Your task to perform on an android device: change keyboard looks Image 0: 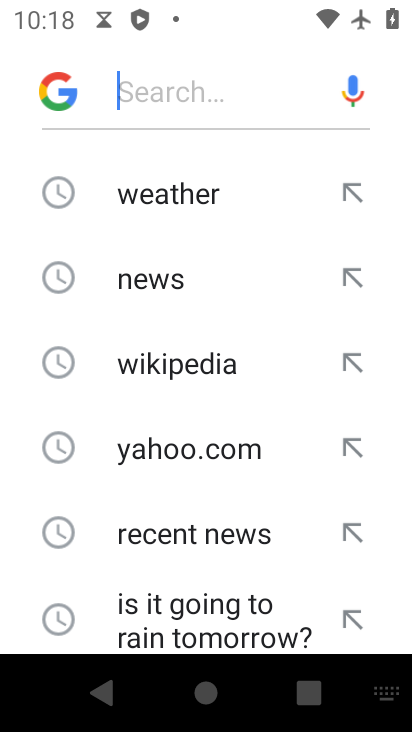
Step 0: press back button
Your task to perform on an android device: change keyboard looks Image 1: 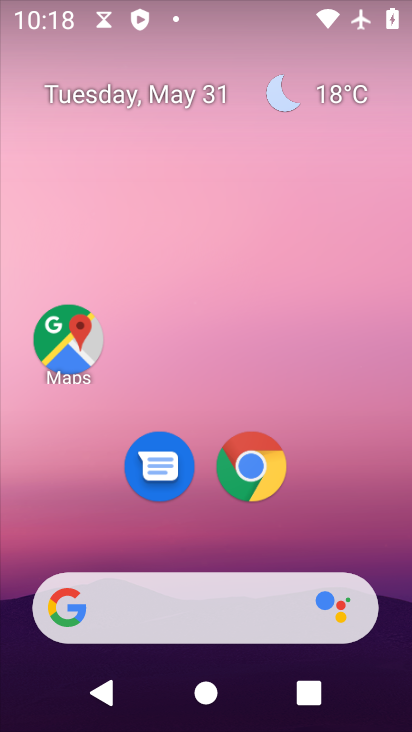
Step 1: drag from (351, 466) to (254, 0)
Your task to perform on an android device: change keyboard looks Image 2: 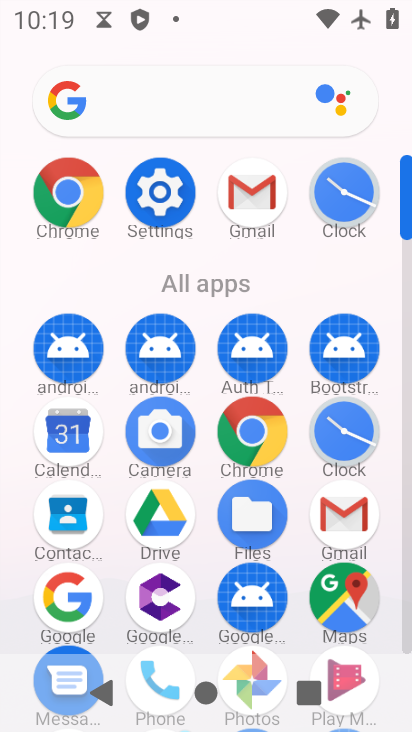
Step 2: click (345, 428)
Your task to perform on an android device: change keyboard looks Image 3: 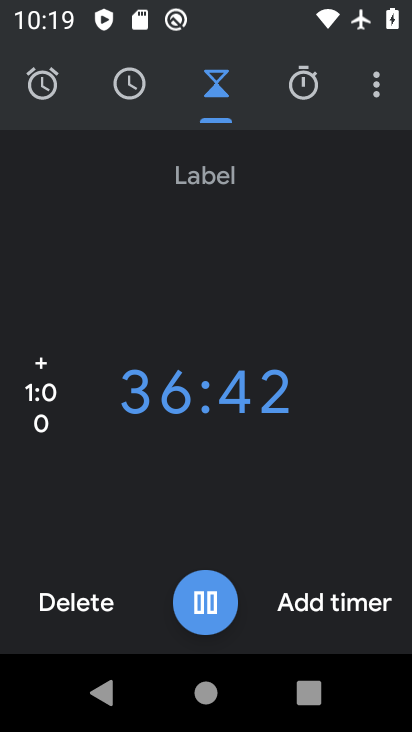
Step 3: press back button
Your task to perform on an android device: change keyboard looks Image 4: 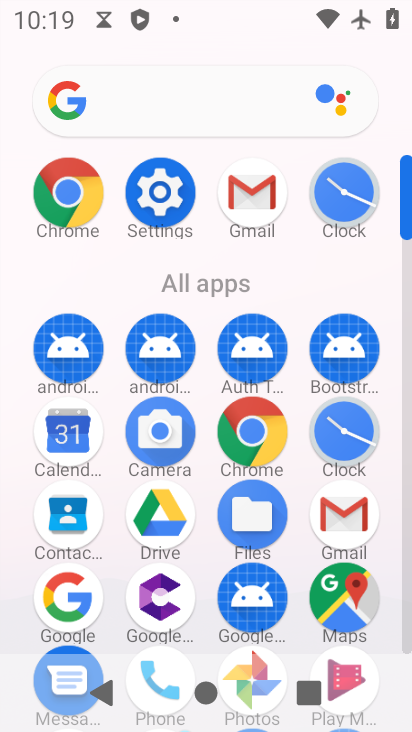
Step 4: click (156, 187)
Your task to perform on an android device: change keyboard looks Image 5: 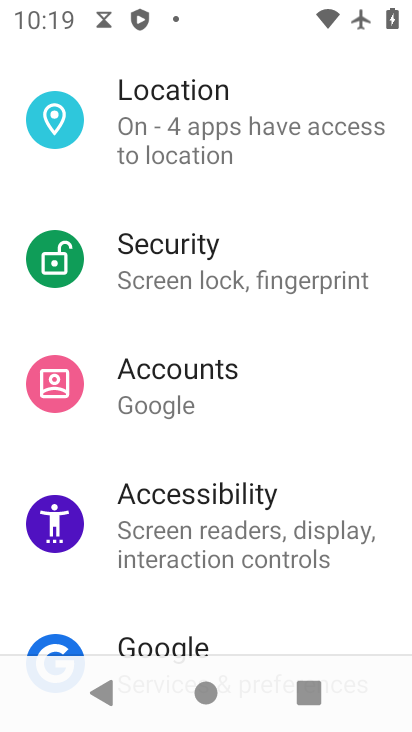
Step 5: drag from (299, 547) to (260, 106)
Your task to perform on an android device: change keyboard looks Image 6: 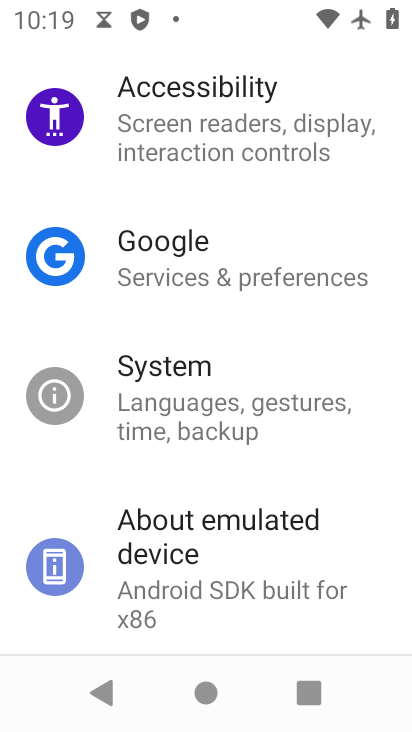
Step 6: drag from (332, 565) to (336, 76)
Your task to perform on an android device: change keyboard looks Image 7: 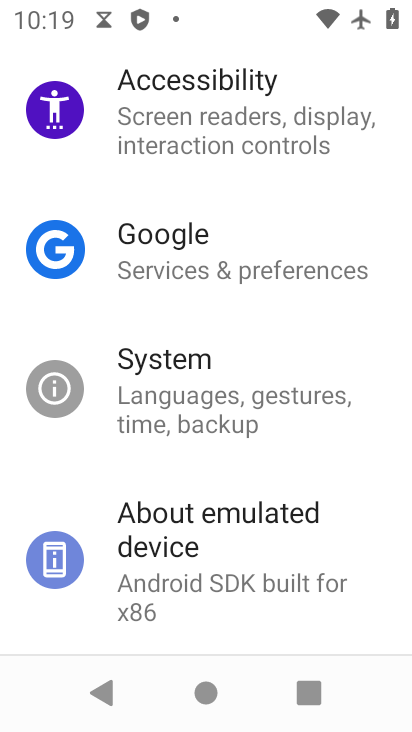
Step 7: click (199, 386)
Your task to perform on an android device: change keyboard looks Image 8: 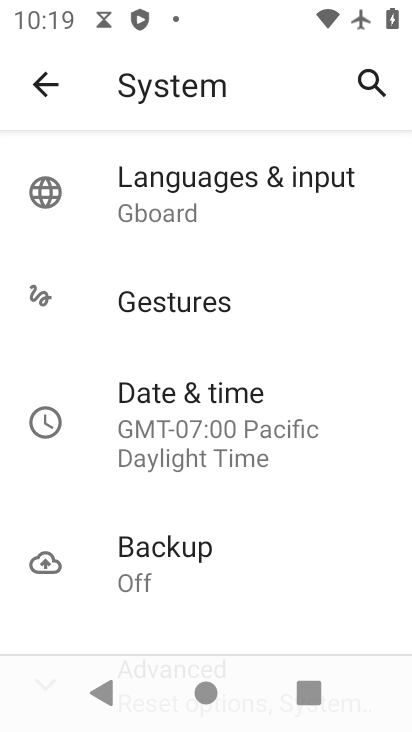
Step 8: click (224, 179)
Your task to perform on an android device: change keyboard looks Image 9: 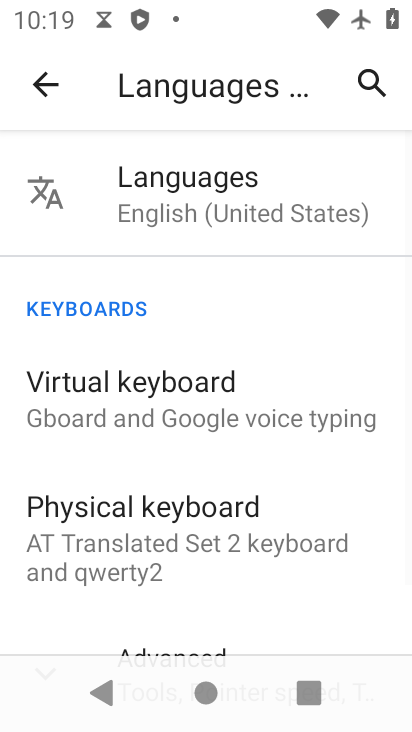
Step 9: click (216, 396)
Your task to perform on an android device: change keyboard looks Image 10: 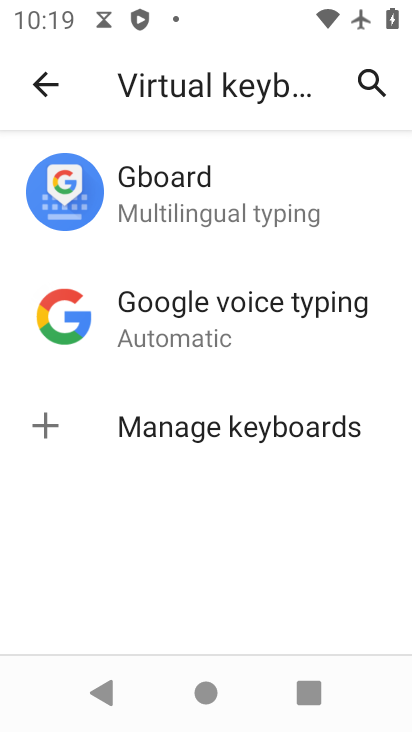
Step 10: click (218, 185)
Your task to perform on an android device: change keyboard looks Image 11: 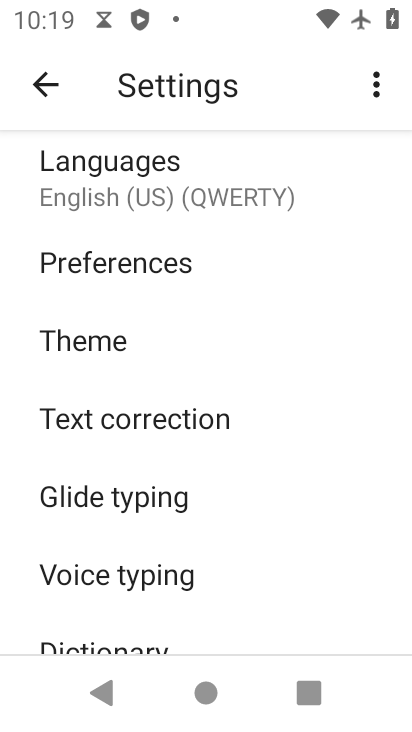
Step 11: click (178, 342)
Your task to perform on an android device: change keyboard looks Image 12: 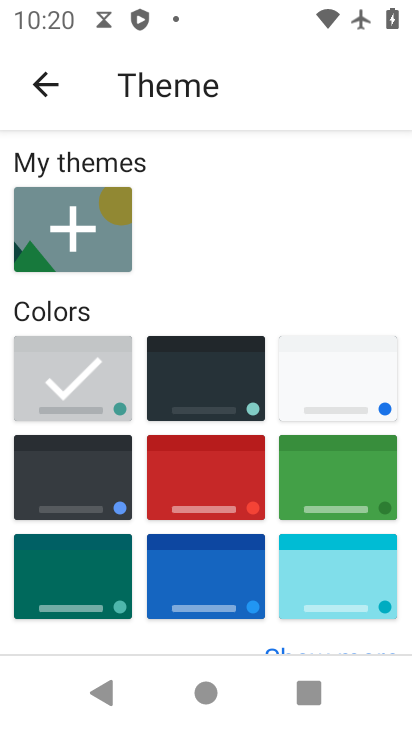
Step 12: click (202, 372)
Your task to perform on an android device: change keyboard looks Image 13: 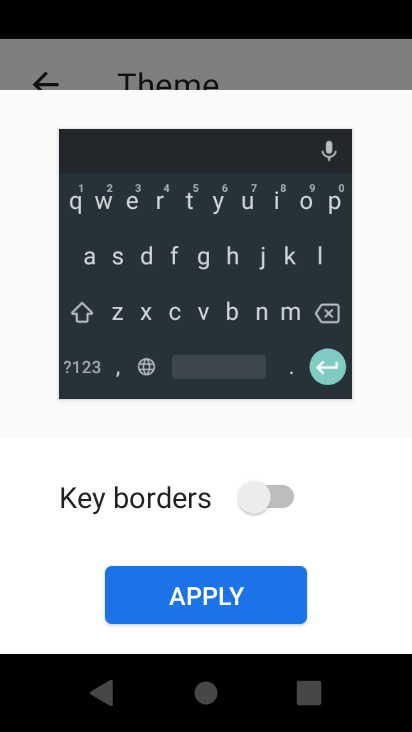
Step 13: click (190, 584)
Your task to perform on an android device: change keyboard looks Image 14: 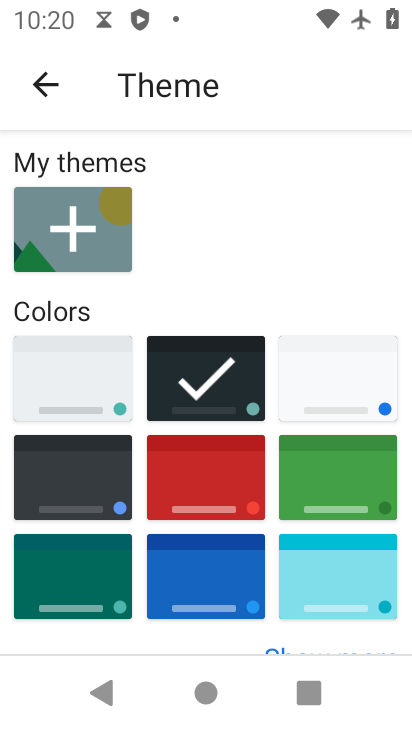
Step 14: task complete